Your task to perform on an android device: turn notification dots off Image 0: 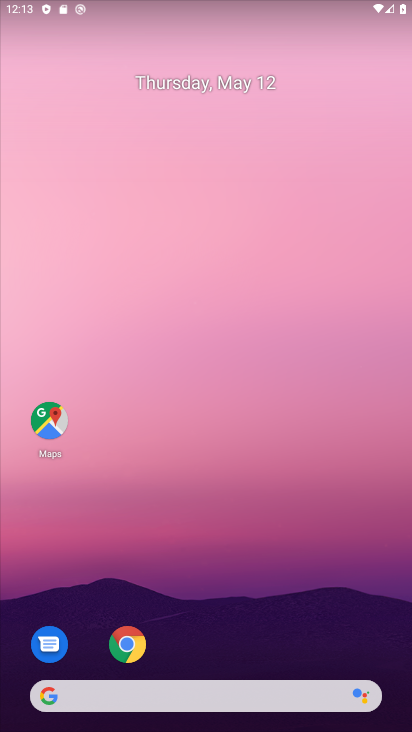
Step 0: drag from (248, 493) to (187, 85)
Your task to perform on an android device: turn notification dots off Image 1: 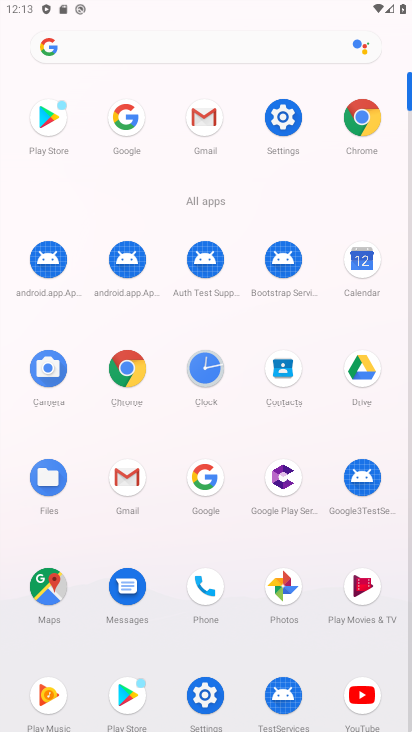
Step 1: click (276, 117)
Your task to perform on an android device: turn notification dots off Image 2: 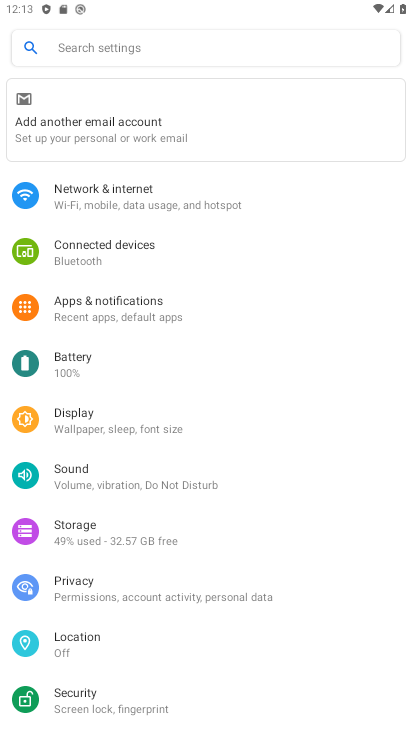
Step 2: click (181, 297)
Your task to perform on an android device: turn notification dots off Image 3: 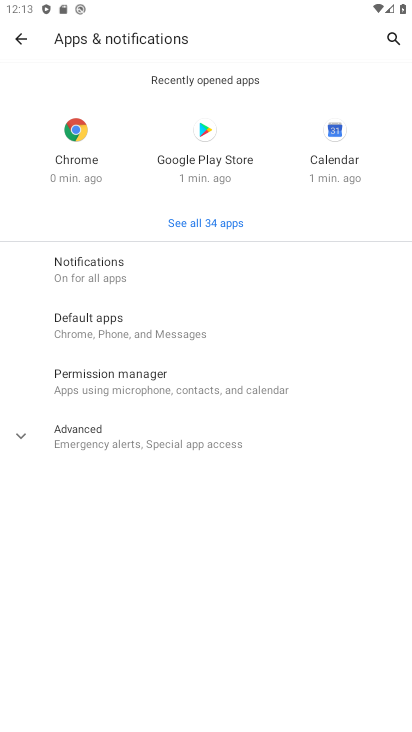
Step 3: click (143, 272)
Your task to perform on an android device: turn notification dots off Image 4: 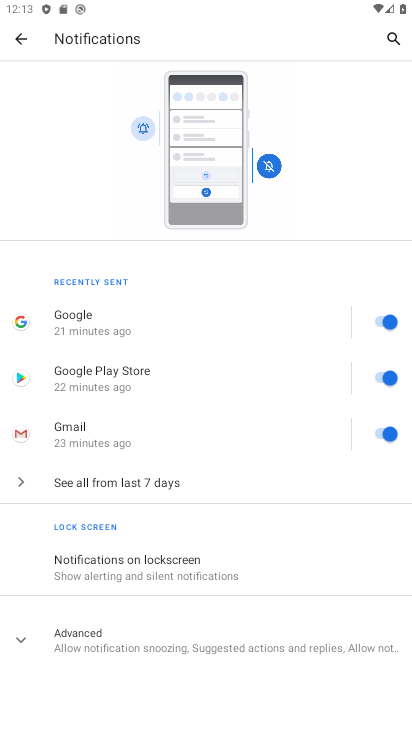
Step 4: click (200, 618)
Your task to perform on an android device: turn notification dots off Image 5: 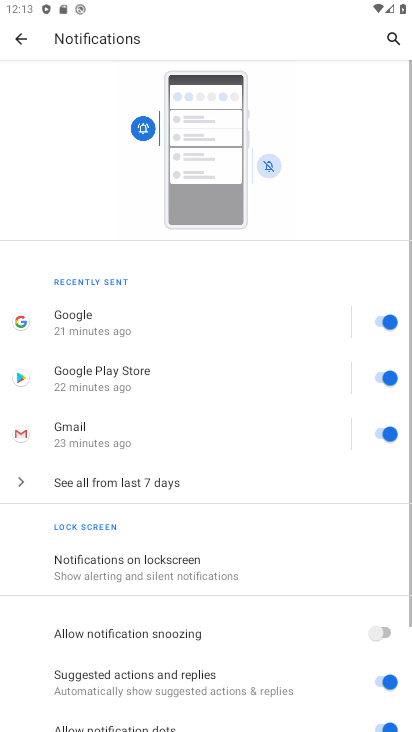
Step 5: drag from (144, 625) to (179, 333)
Your task to perform on an android device: turn notification dots off Image 6: 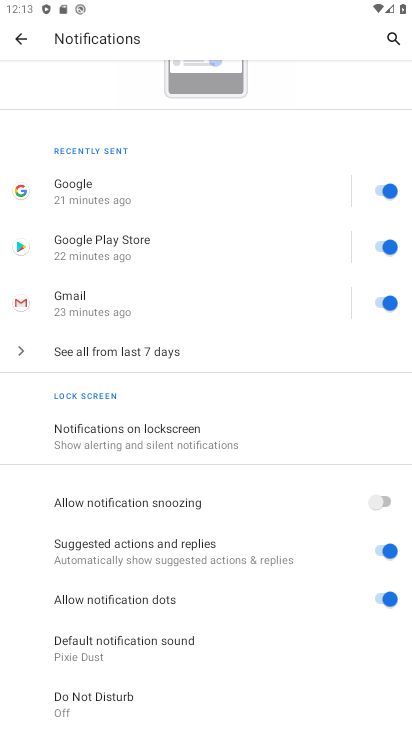
Step 6: click (380, 595)
Your task to perform on an android device: turn notification dots off Image 7: 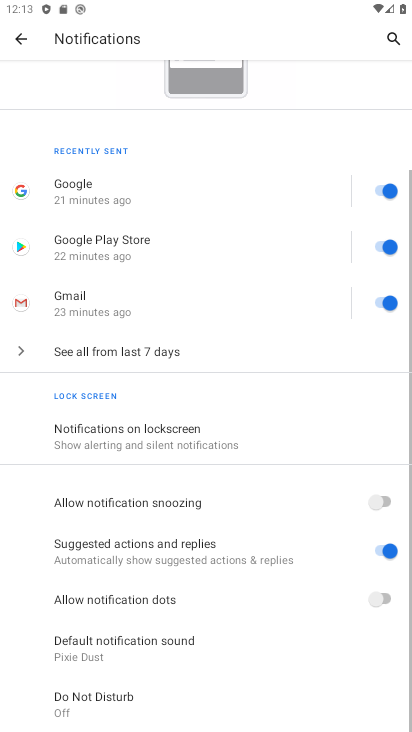
Step 7: task complete